Your task to perform on an android device: turn smart compose on in the gmail app Image 0: 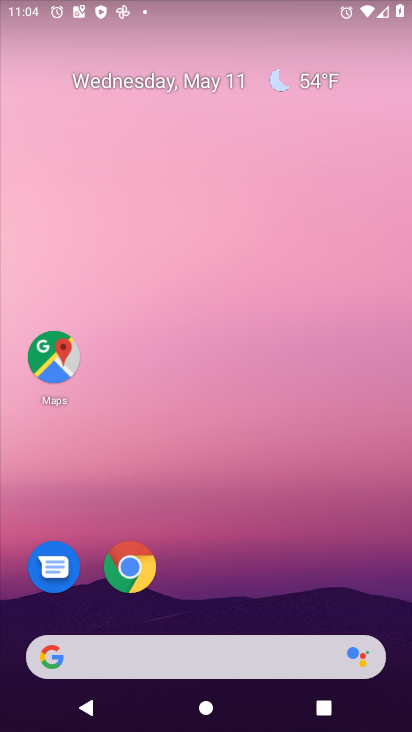
Step 0: drag from (204, 597) to (249, 13)
Your task to perform on an android device: turn smart compose on in the gmail app Image 1: 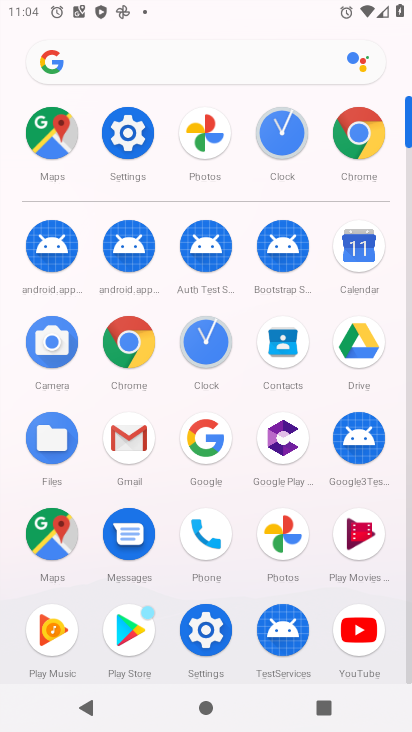
Step 1: click (129, 457)
Your task to perform on an android device: turn smart compose on in the gmail app Image 2: 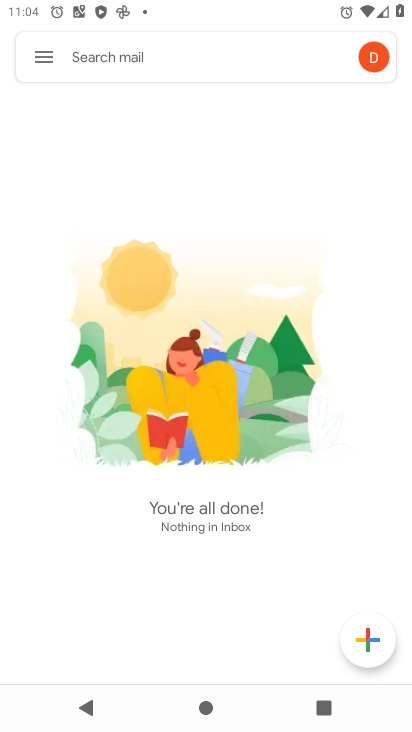
Step 2: click (54, 51)
Your task to perform on an android device: turn smart compose on in the gmail app Image 3: 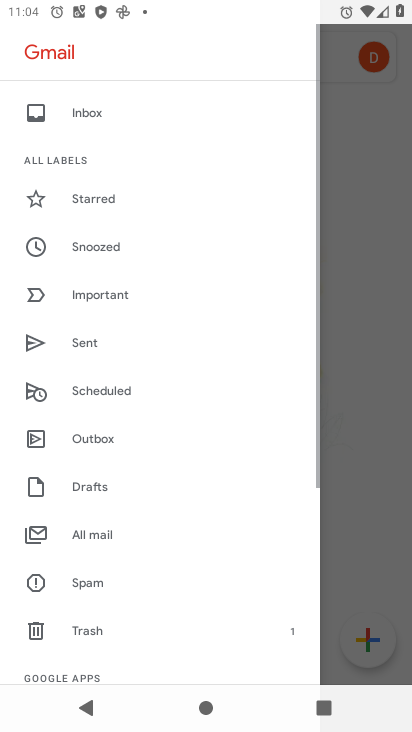
Step 3: drag from (111, 602) to (175, 102)
Your task to perform on an android device: turn smart compose on in the gmail app Image 4: 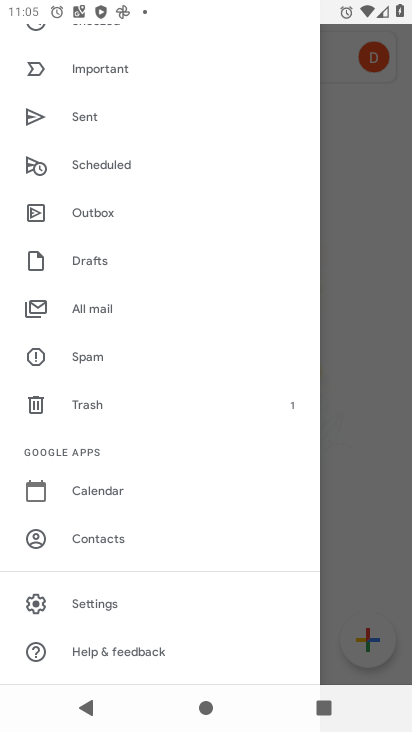
Step 4: click (119, 599)
Your task to perform on an android device: turn smart compose on in the gmail app Image 5: 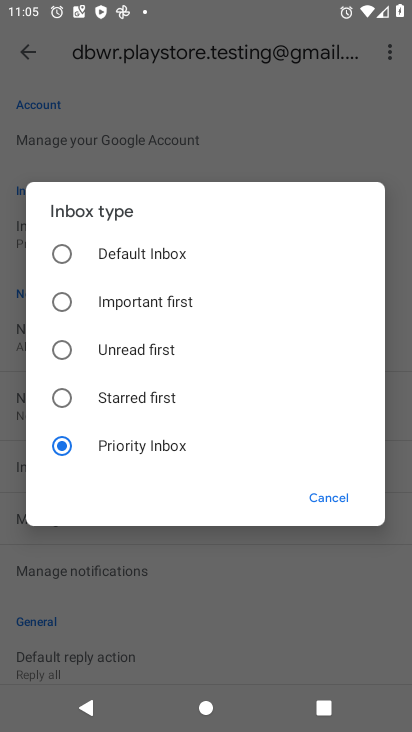
Step 5: click (341, 496)
Your task to perform on an android device: turn smart compose on in the gmail app Image 6: 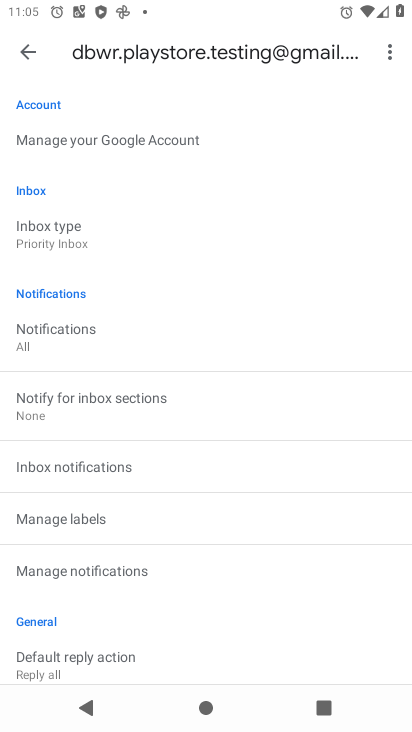
Step 6: drag from (275, 592) to (275, 101)
Your task to perform on an android device: turn smart compose on in the gmail app Image 7: 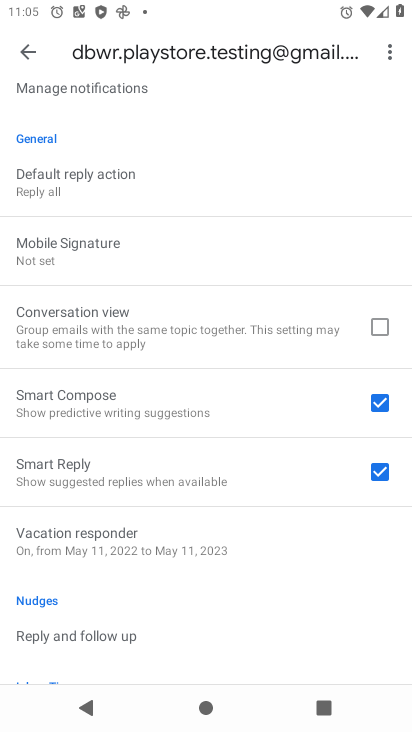
Step 7: click (387, 401)
Your task to perform on an android device: turn smart compose on in the gmail app Image 8: 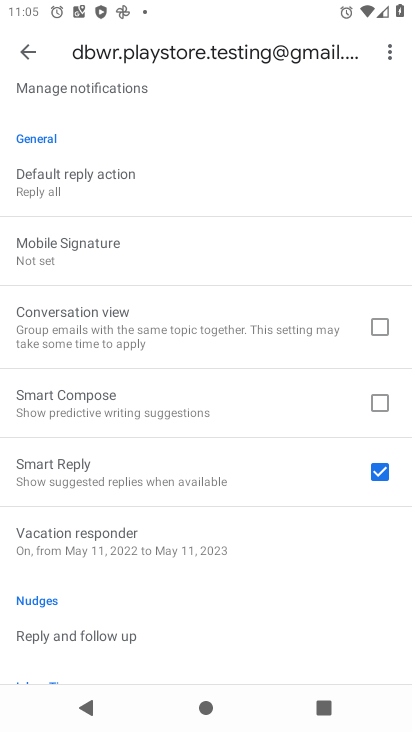
Step 8: task complete